Your task to perform on an android device: allow notifications from all sites in the chrome app Image 0: 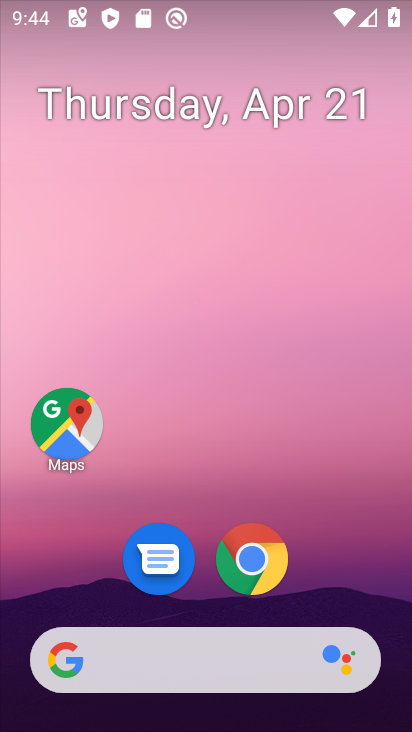
Step 0: drag from (243, 696) to (363, 103)
Your task to perform on an android device: allow notifications from all sites in the chrome app Image 1: 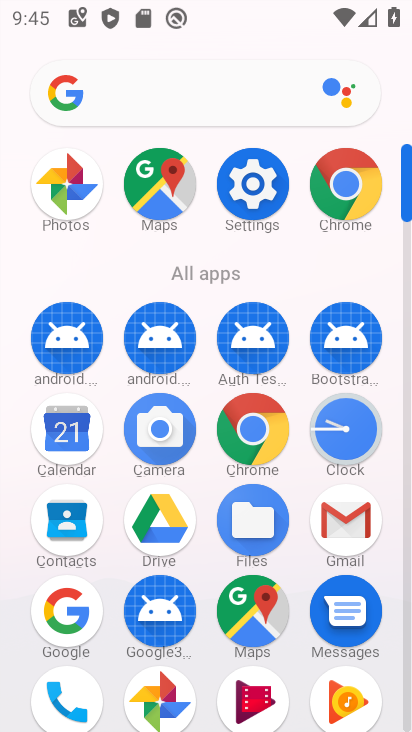
Step 1: click (361, 173)
Your task to perform on an android device: allow notifications from all sites in the chrome app Image 2: 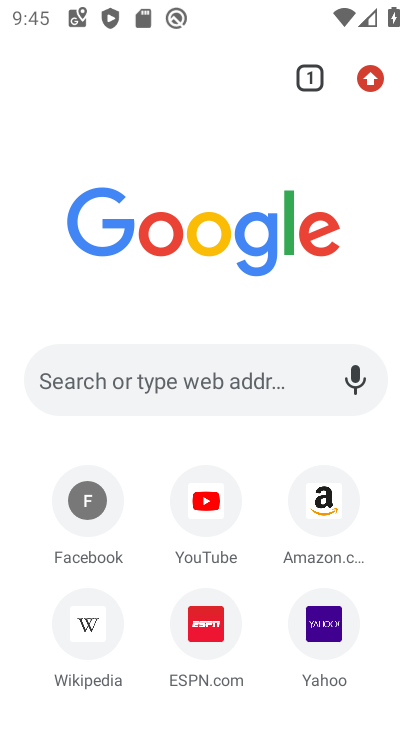
Step 2: click (368, 82)
Your task to perform on an android device: allow notifications from all sites in the chrome app Image 3: 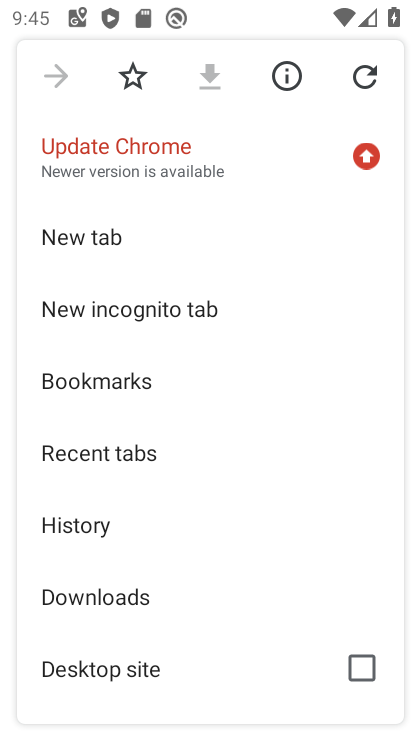
Step 3: drag from (144, 554) to (189, 339)
Your task to perform on an android device: allow notifications from all sites in the chrome app Image 4: 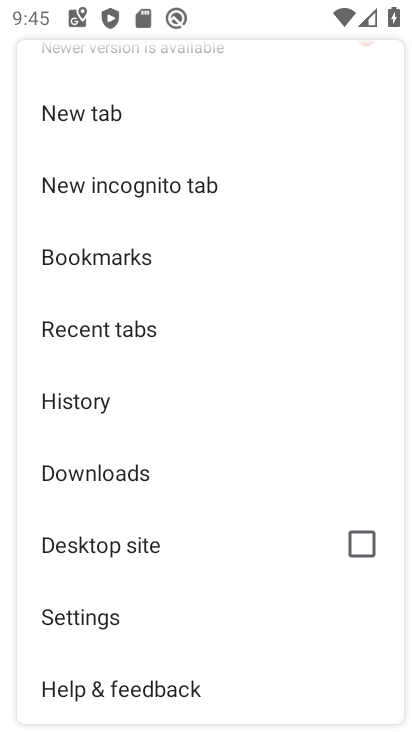
Step 4: click (82, 615)
Your task to perform on an android device: allow notifications from all sites in the chrome app Image 5: 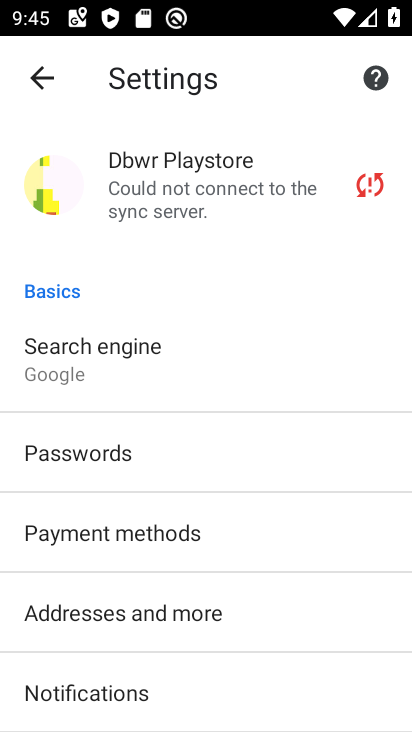
Step 5: drag from (108, 577) to (174, 305)
Your task to perform on an android device: allow notifications from all sites in the chrome app Image 6: 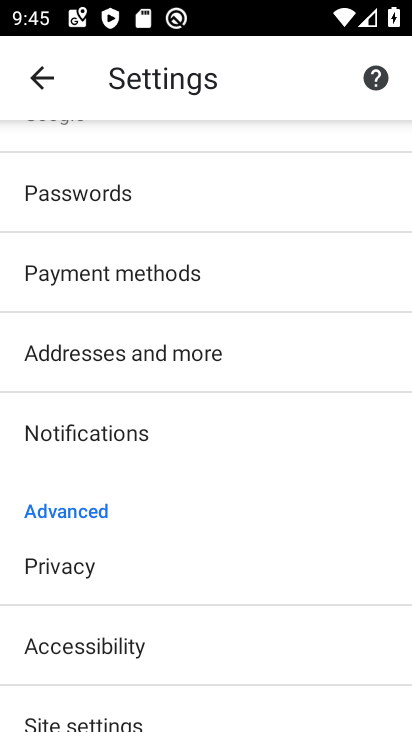
Step 6: drag from (121, 572) to (208, 357)
Your task to perform on an android device: allow notifications from all sites in the chrome app Image 7: 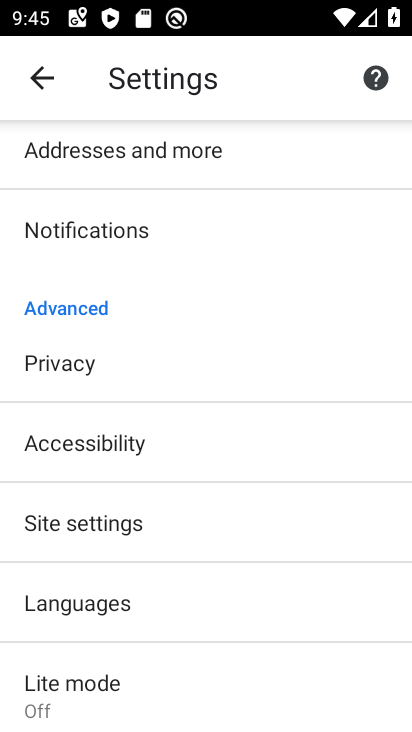
Step 7: click (99, 532)
Your task to perform on an android device: allow notifications from all sites in the chrome app Image 8: 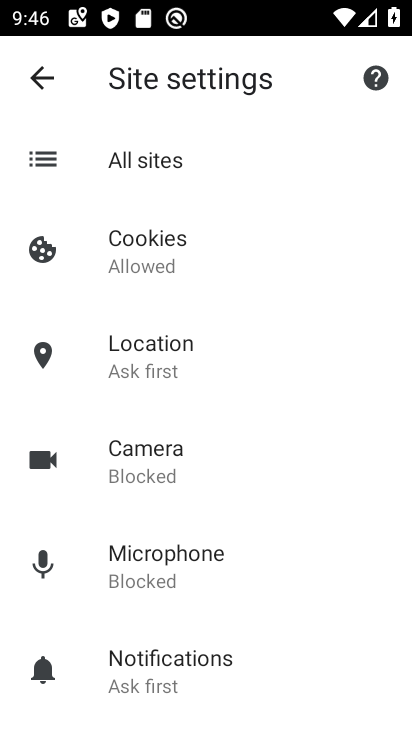
Step 8: drag from (161, 554) to (237, 317)
Your task to perform on an android device: allow notifications from all sites in the chrome app Image 9: 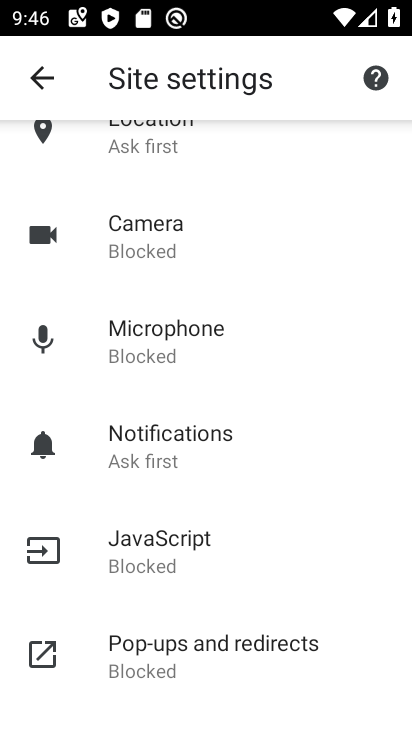
Step 9: click (172, 469)
Your task to perform on an android device: allow notifications from all sites in the chrome app Image 10: 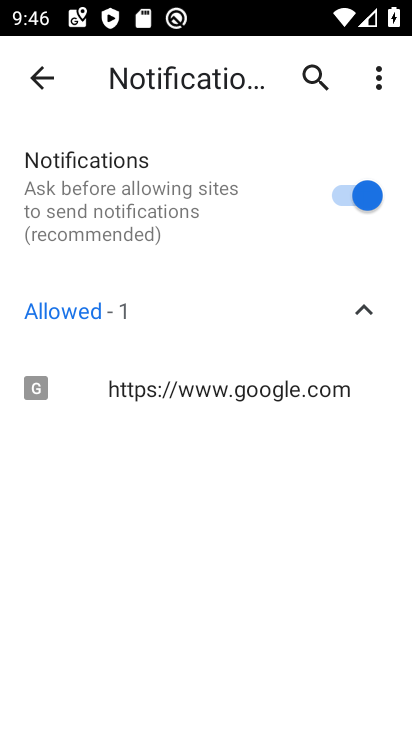
Step 10: click (280, 198)
Your task to perform on an android device: allow notifications from all sites in the chrome app Image 11: 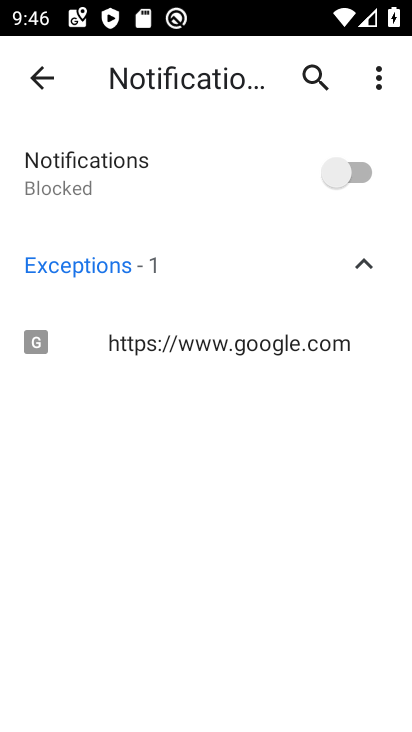
Step 11: click (280, 199)
Your task to perform on an android device: allow notifications from all sites in the chrome app Image 12: 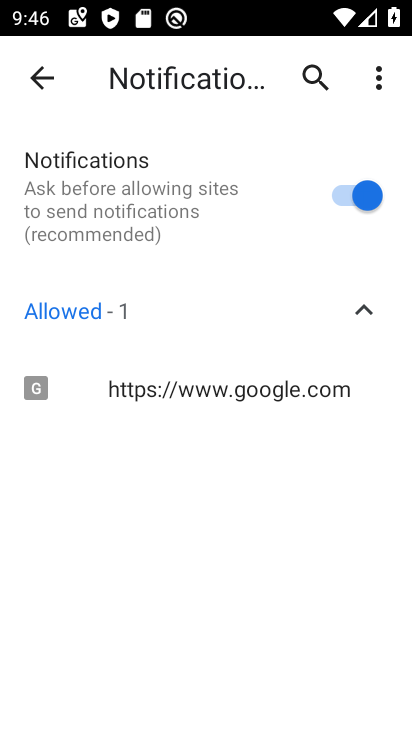
Step 12: task complete